Your task to perform on an android device: delete browsing data in the chrome app Image 0: 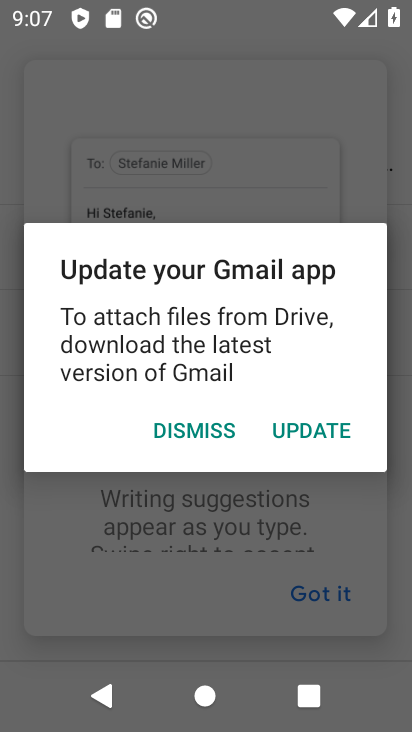
Step 0: press home button
Your task to perform on an android device: delete browsing data in the chrome app Image 1: 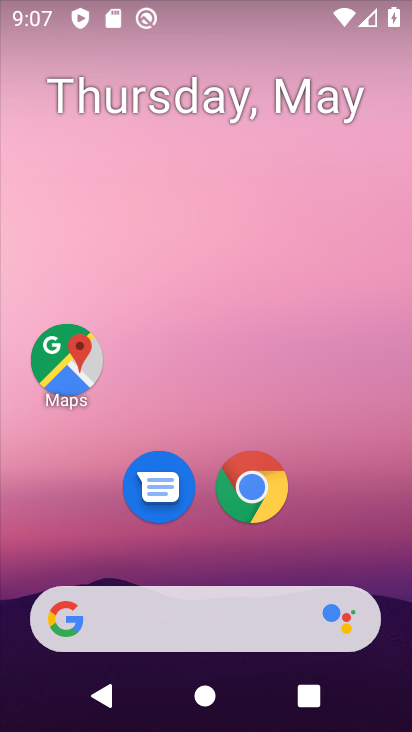
Step 1: click (255, 480)
Your task to perform on an android device: delete browsing data in the chrome app Image 2: 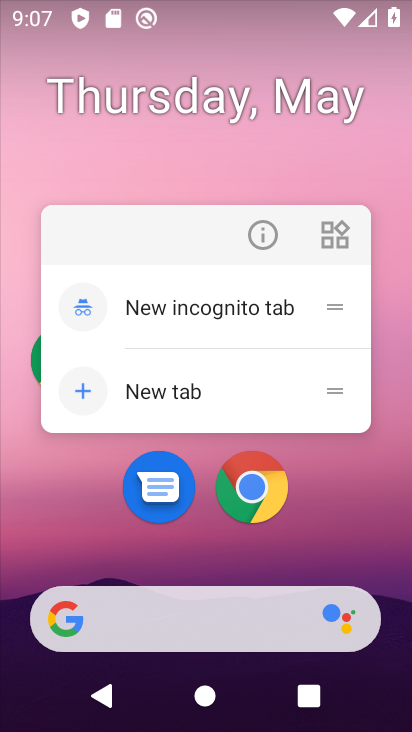
Step 2: click (273, 486)
Your task to perform on an android device: delete browsing data in the chrome app Image 3: 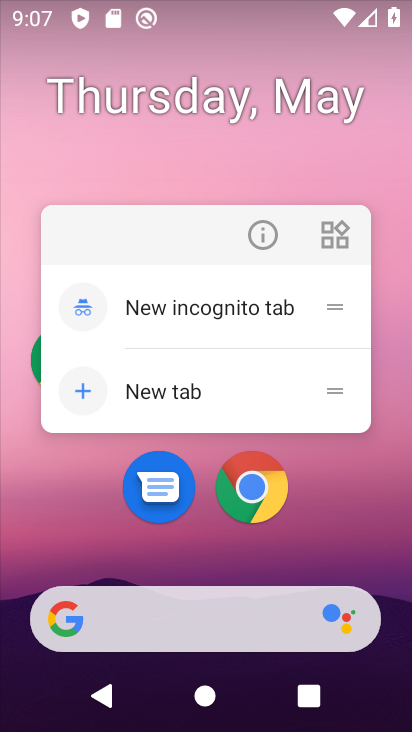
Step 3: click (252, 483)
Your task to perform on an android device: delete browsing data in the chrome app Image 4: 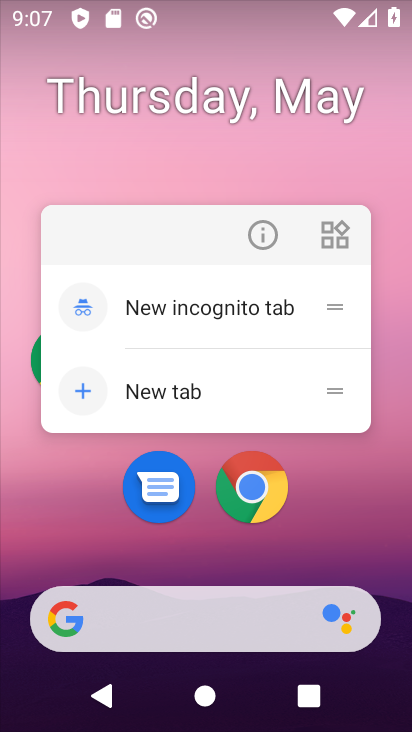
Step 4: click (256, 494)
Your task to perform on an android device: delete browsing data in the chrome app Image 5: 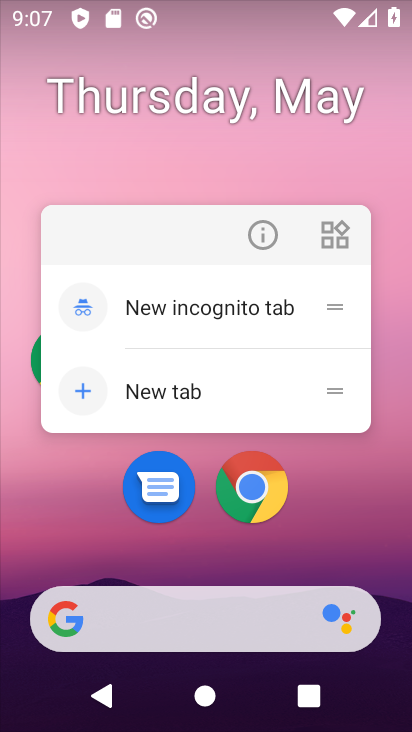
Step 5: click (258, 492)
Your task to perform on an android device: delete browsing data in the chrome app Image 6: 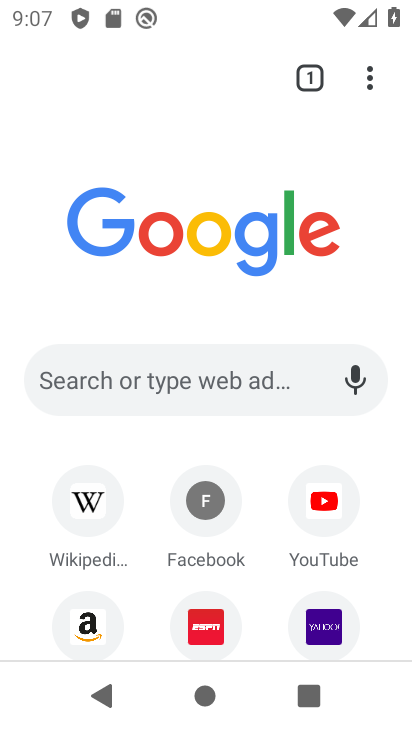
Step 6: drag from (368, 74) to (138, 448)
Your task to perform on an android device: delete browsing data in the chrome app Image 7: 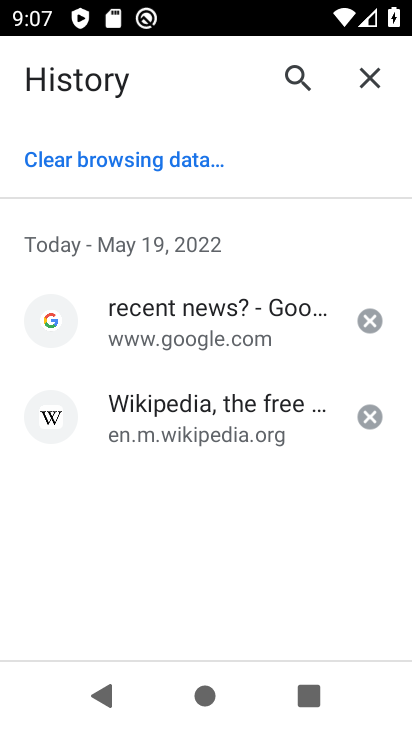
Step 7: click (141, 175)
Your task to perform on an android device: delete browsing data in the chrome app Image 8: 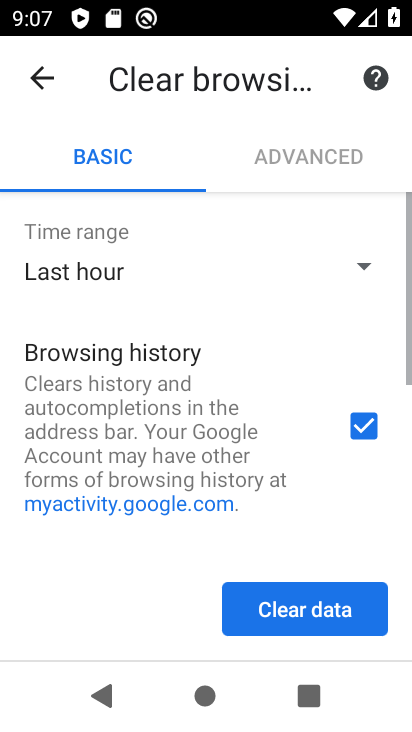
Step 8: drag from (210, 488) to (266, 91)
Your task to perform on an android device: delete browsing data in the chrome app Image 9: 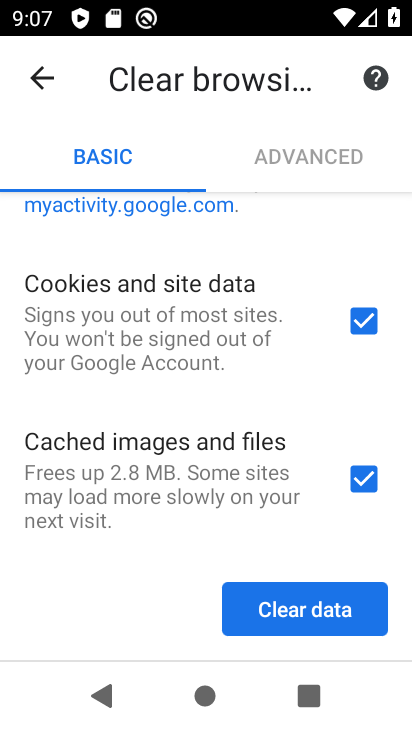
Step 9: drag from (198, 239) to (161, 625)
Your task to perform on an android device: delete browsing data in the chrome app Image 10: 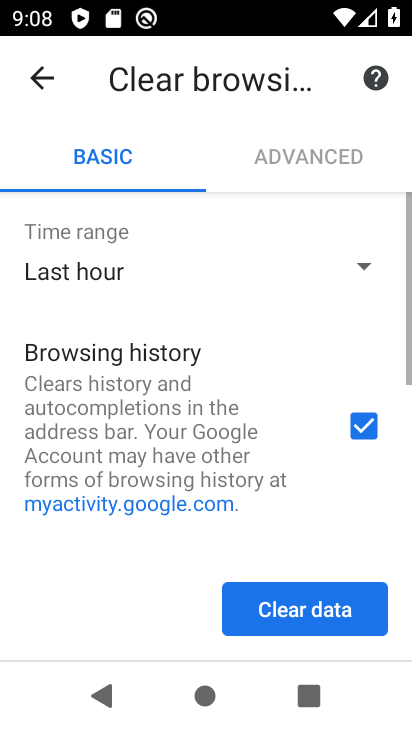
Step 10: click (279, 628)
Your task to perform on an android device: delete browsing data in the chrome app Image 11: 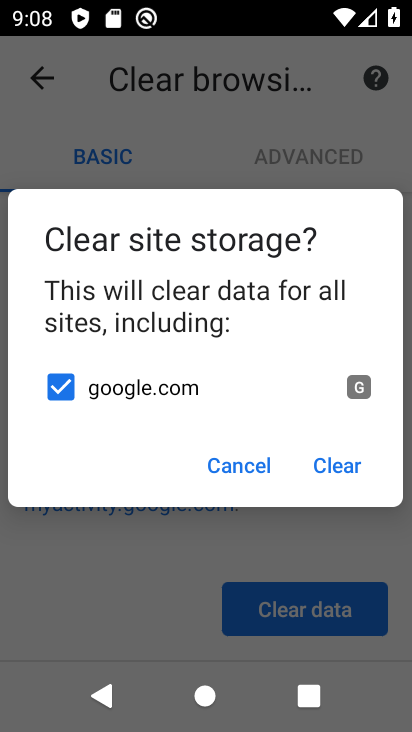
Step 11: click (320, 451)
Your task to perform on an android device: delete browsing data in the chrome app Image 12: 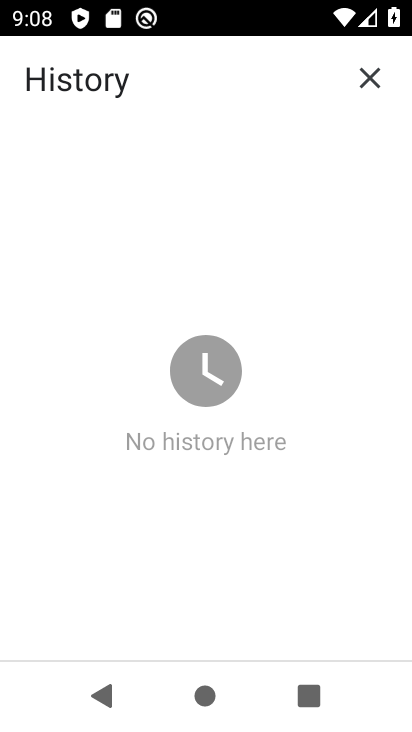
Step 12: task complete